Your task to perform on an android device: change the clock display to analog Image 0: 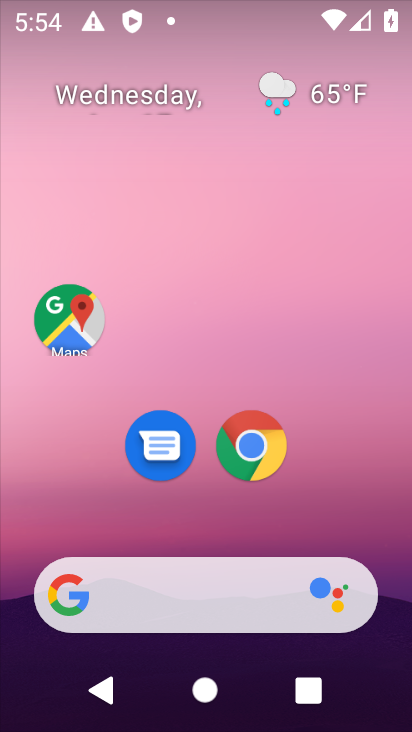
Step 0: drag from (207, 463) to (207, 107)
Your task to perform on an android device: change the clock display to analog Image 1: 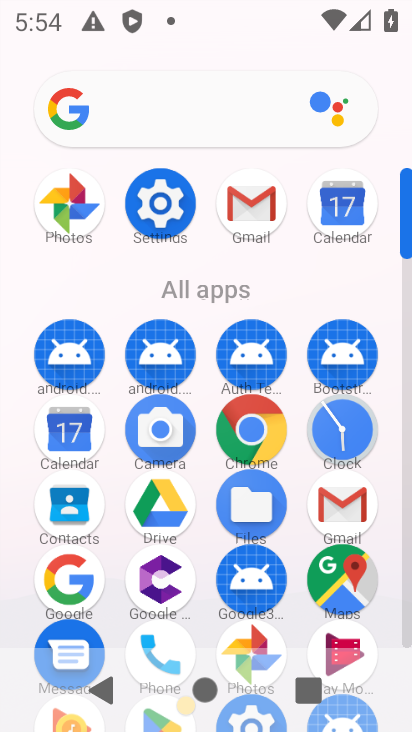
Step 1: click (324, 432)
Your task to perform on an android device: change the clock display to analog Image 2: 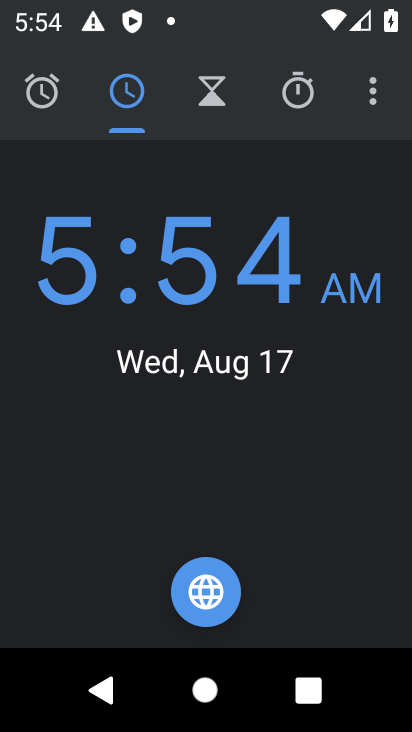
Step 2: click (371, 100)
Your task to perform on an android device: change the clock display to analog Image 3: 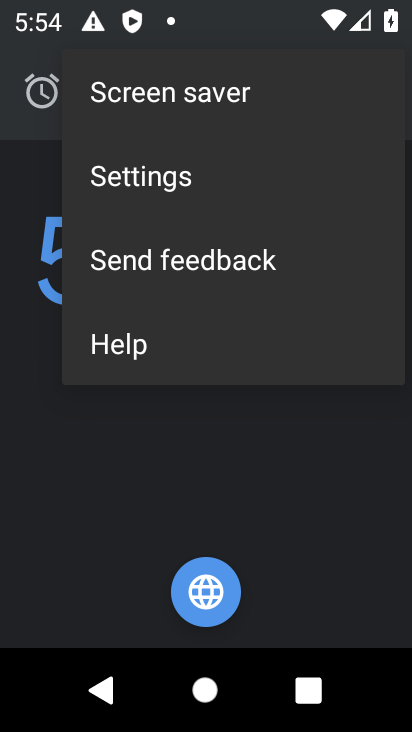
Step 3: click (171, 174)
Your task to perform on an android device: change the clock display to analog Image 4: 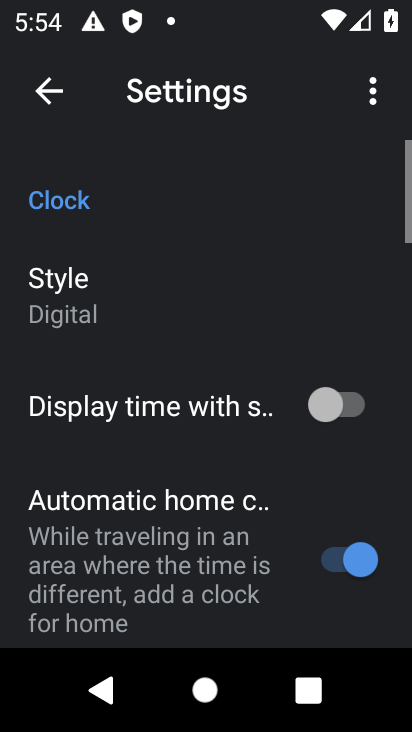
Step 4: click (99, 286)
Your task to perform on an android device: change the clock display to analog Image 5: 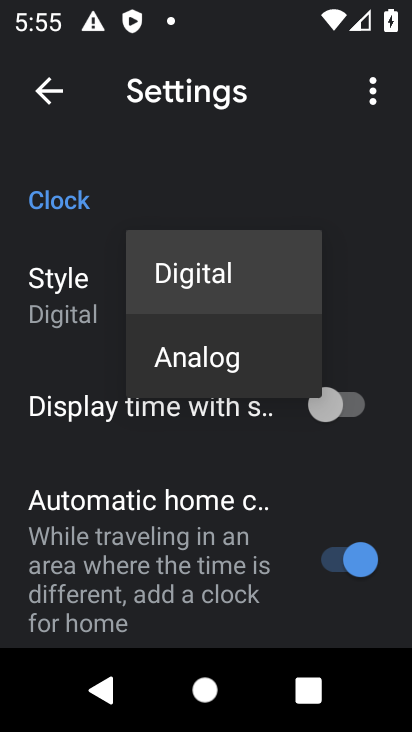
Step 5: click (191, 357)
Your task to perform on an android device: change the clock display to analog Image 6: 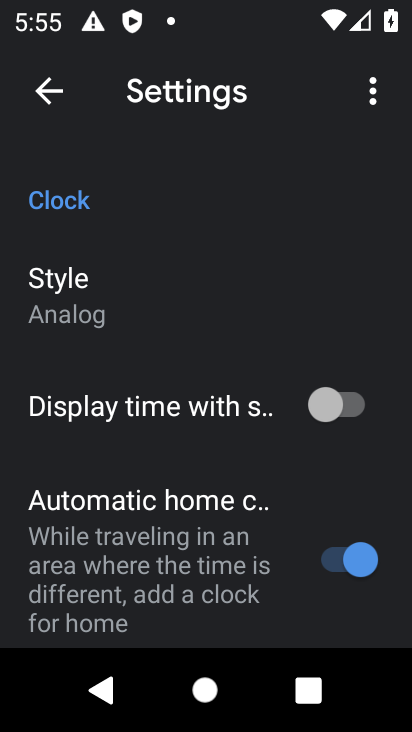
Step 6: task complete